Your task to perform on an android device: add a contact in the contacts app Image 0: 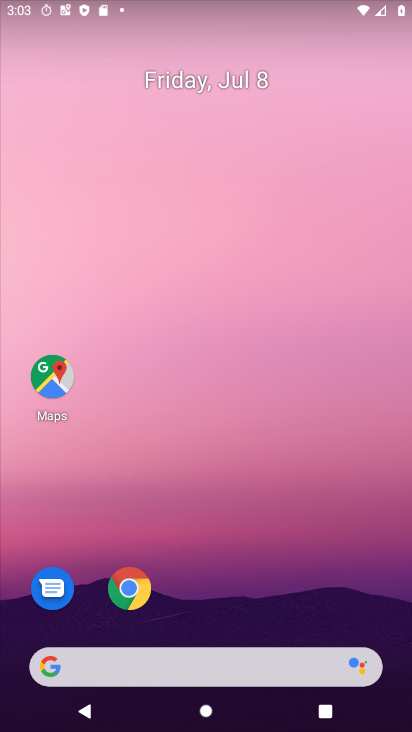
Step 0: press home button
Your task to perform on an android device: add a contact in the contacts app Image 1: 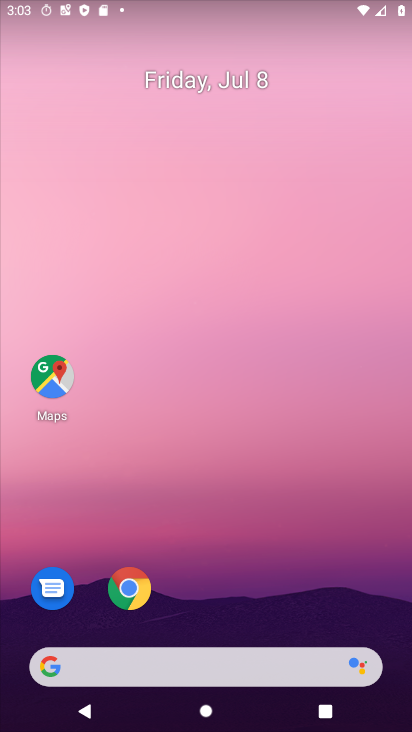
Step 1: drag from (256, 626) to (237, 73)
Your task to perform on an android device: add a contact in the contacts app Image 2: 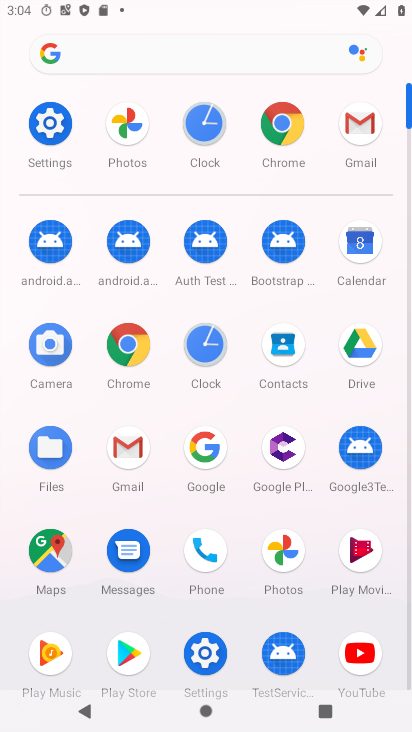
Step 2: click (284, 344)
Your task to perform on an android device: add a contact in the contacts app Image 3: 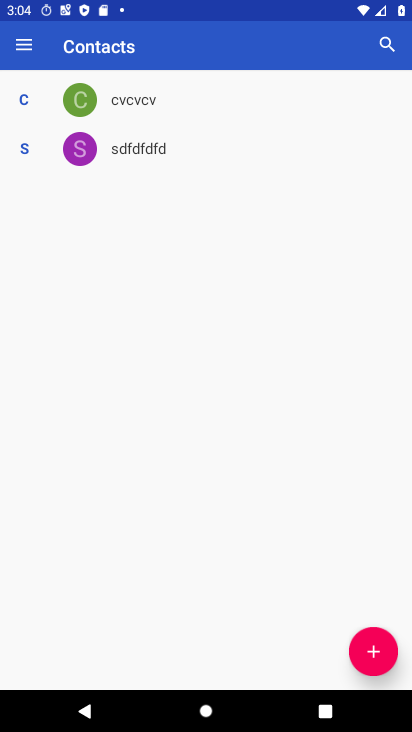
Step 3: click (373, 655)
Your task to perform on an android device: add a contact in the contacts app Image 4: 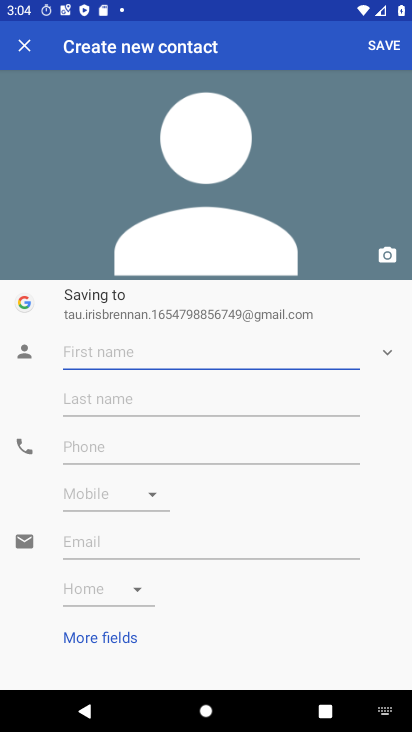
Step 4: type "bnbnn "
Your task to perform on an android device: add a contact in the contacts app Image 5: 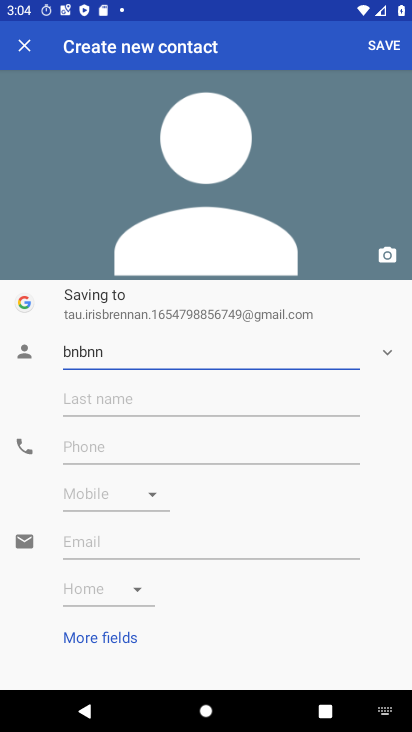
Step 5: click (97, 454)
Your task to perform on an android device: add a contact in the contacts app Image 6: 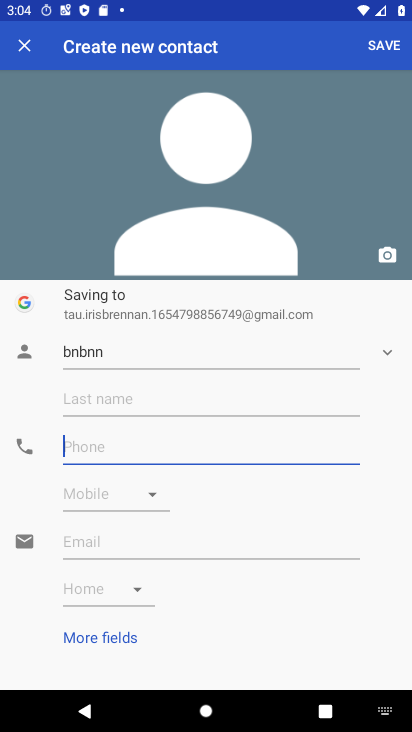
Step 6: type "5656565"
Your task to perform on an android device: add a contact in the contacts app Image 7: 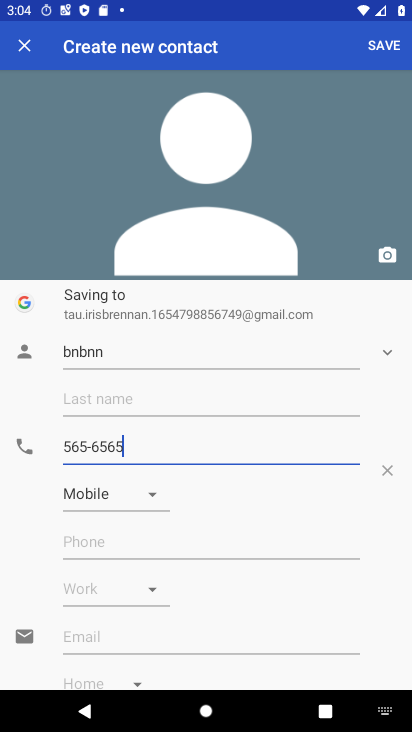
Step 7: click (383, 38)
Your task to perform on an android device: add a contact in the contacts app Image 8: 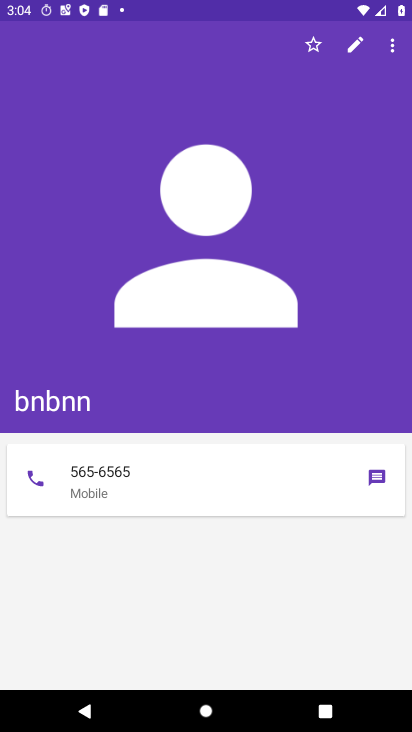
Step 8: task complete